Your task to perform on an android device: check the backup settings in the google photos Image 0: 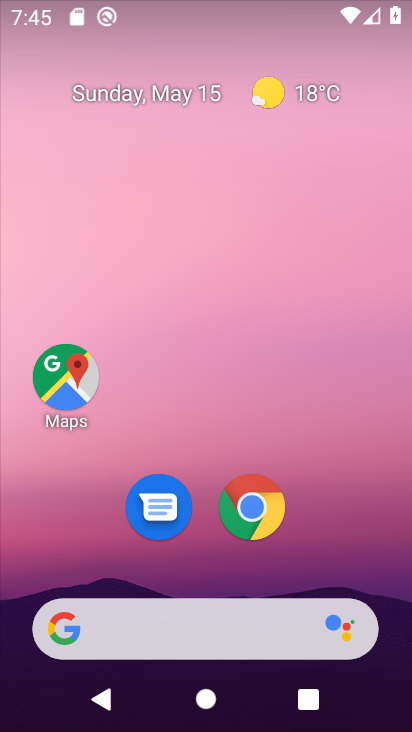
Step 0: drag from (398, 628) to (387, 0)
Your task to perform on an android device: check the backup settings in the google photos Image 1: 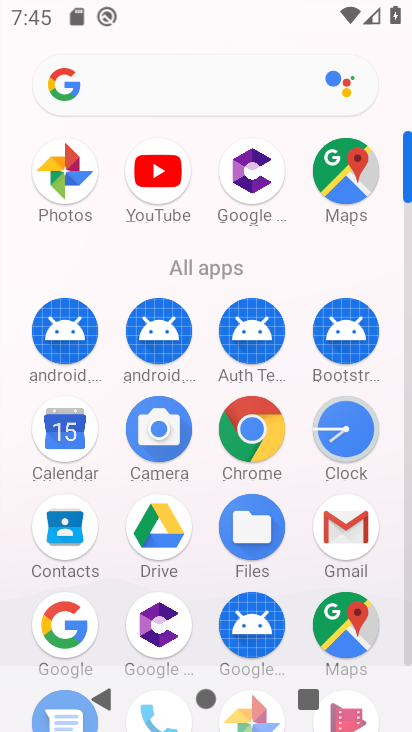
Step 1: click (410, 647)
Your task to perform on an android device: check the backup settings in the google photos Image 2: 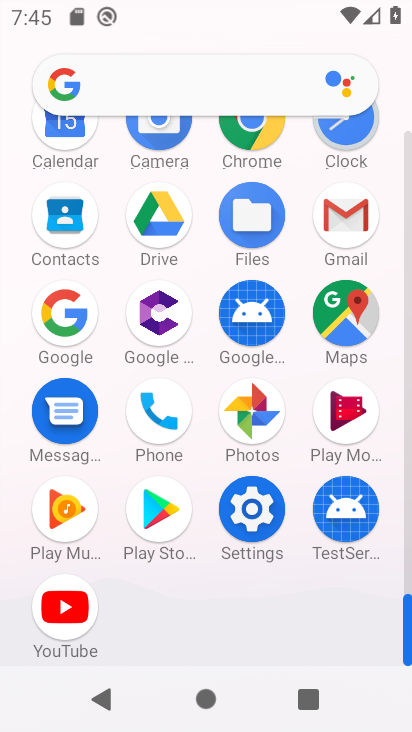
Step 2: click (250, 408)
Your task to perform on an android device: check the backup settings in the google photos Image 3: 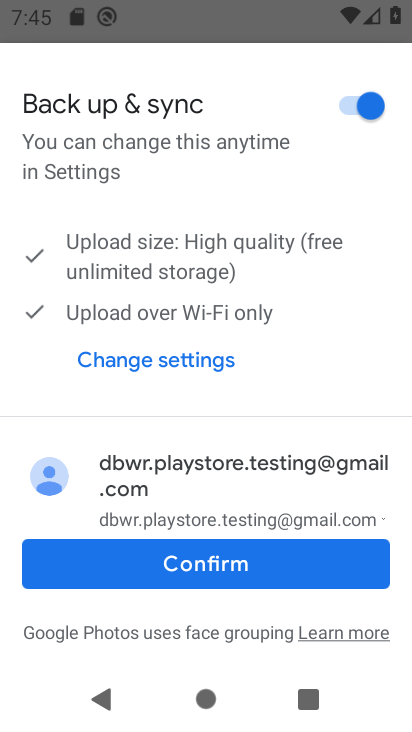
Step 3: click (208, 567)
Your task to perform on an android device: check the backup settings in the google photos Image 4: 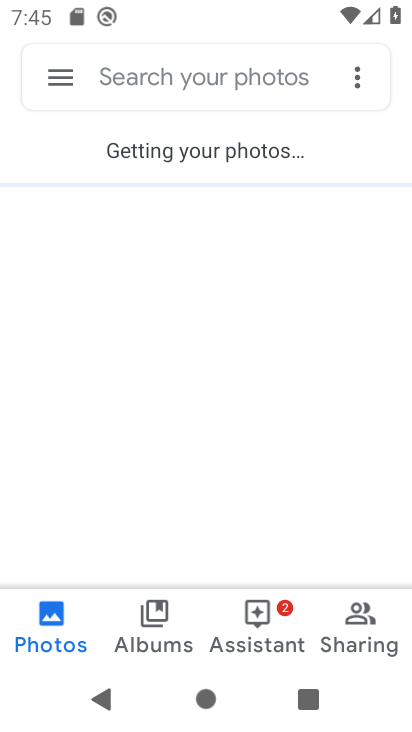
Step 4: click (55, 72)
Your task to perform on an android device: check the backup settings in the google photos Image 5: 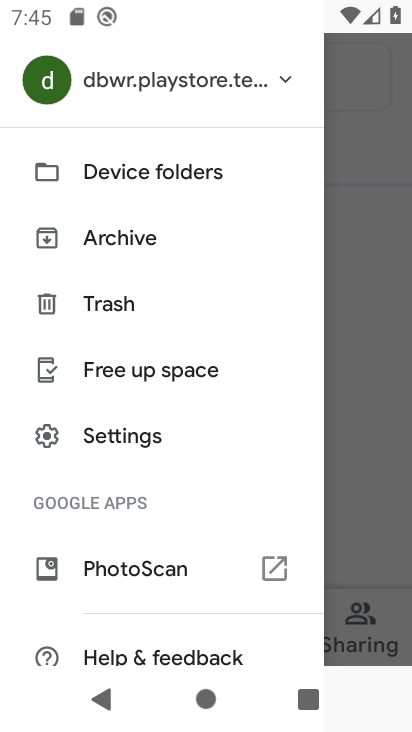
Step 5: click (122, 434)
Your task to perform on an android device: check the backup settings in the google photos Image 6: 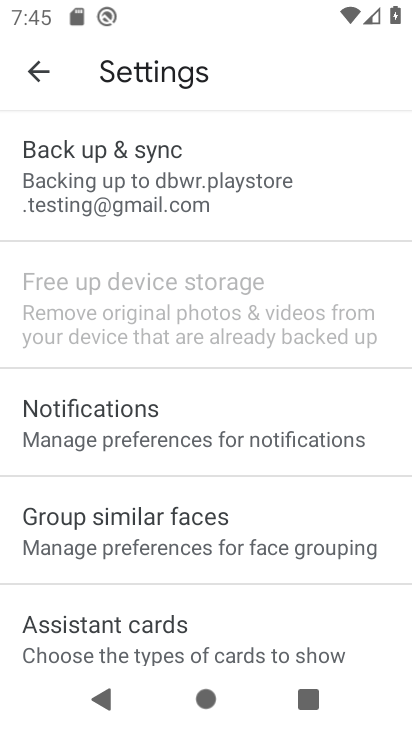
Step 6: click (112, 179)
Your task to perform on an android device: check the backup settings in the google photos Image 7: 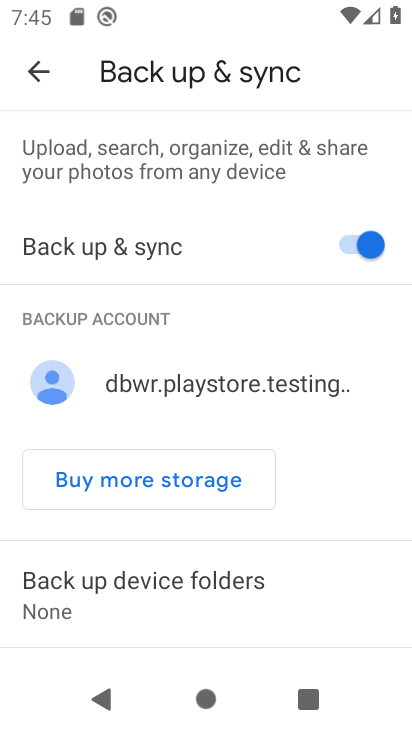
Step 7: task complete